Your task to perform on an android device: Open calendar and show me the fourth week of next month Image 0: 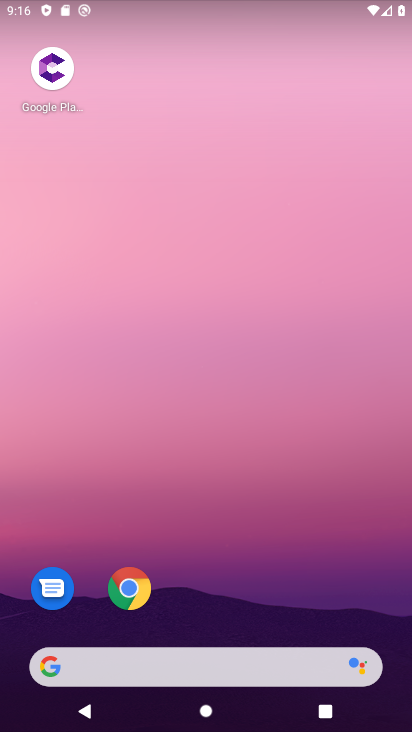
Step 0: drag from (264, 594) to (269, 0)
Your task to perform on an android device: Open calendar and show me the fourth week of next month Image 1: 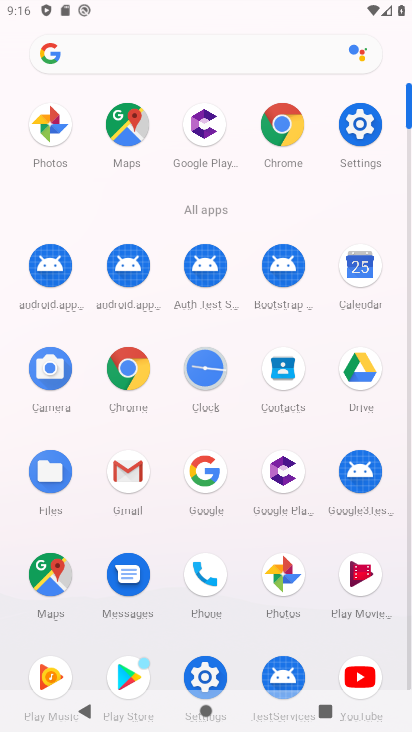
Step 1: click (361, 279)
Your task to perform on an android device: Open calendar and show me the fourth week of next month Image 2: 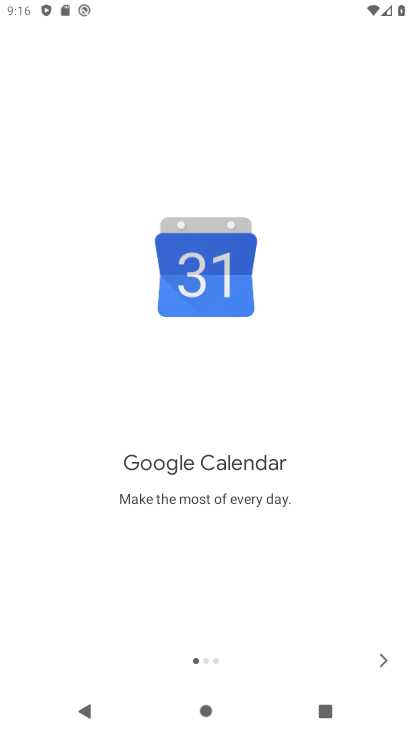
Step 2: click (388, 663)
Your task to perform on an android device: Open calendar and show me the fourth week of next month Image 3: 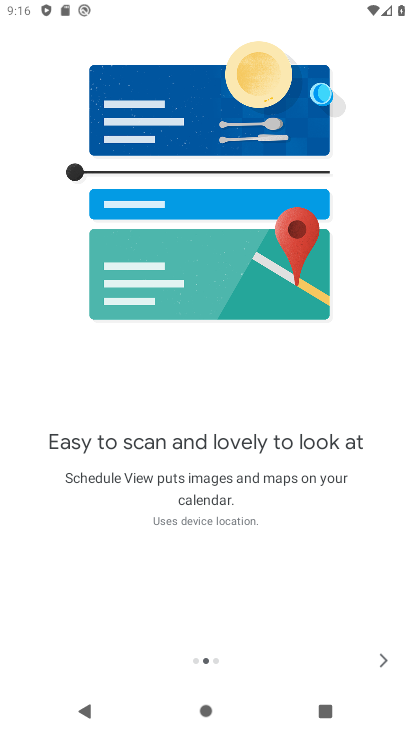
Step 3: click (388, 658)
Your task to perform on an android device: Open calendar and show me the fourth week of next month Image 4: 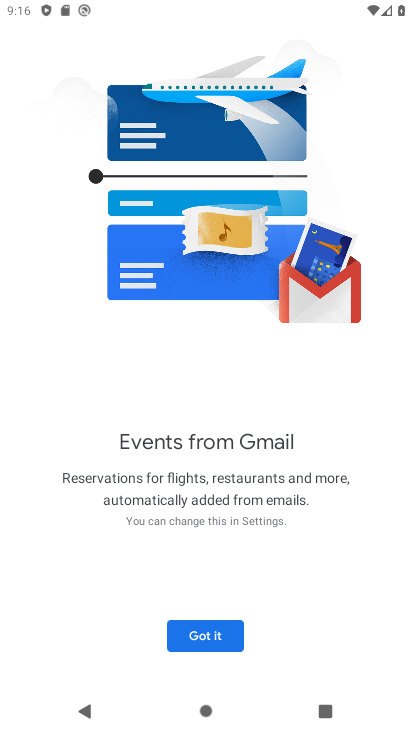
Step 4: click (205, 628)
Your task to perform on an android device: Open calendar and show me the fourth week of next month Image 5: 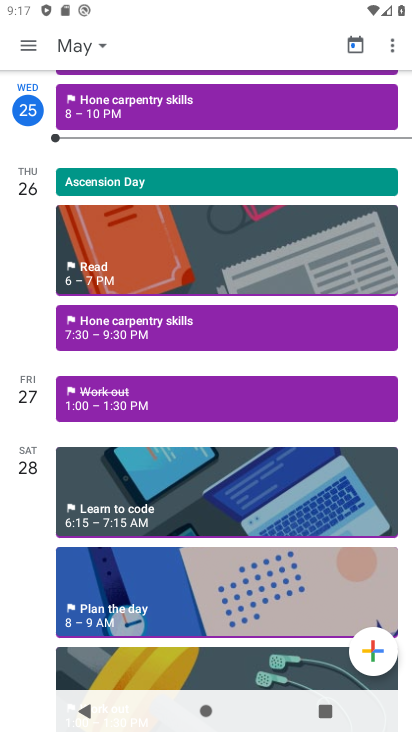
Step 5: click (90, 47)
Your task to perform on an android device: Open calendar and show me the fourth week of next month Image 6: 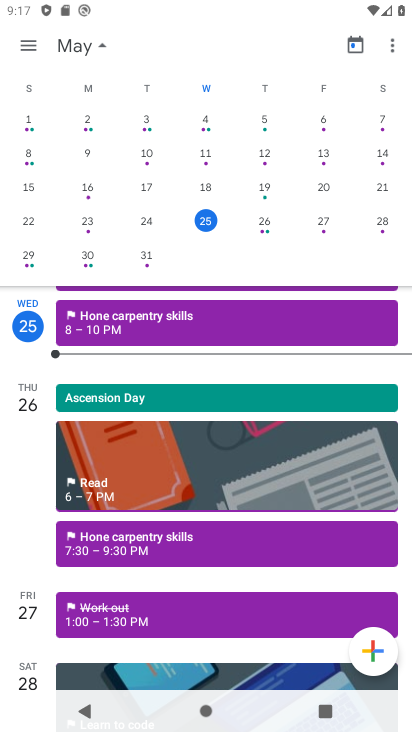
Step 6: drag from (353, 195) to (36, 203)
Your task to perform on an android device: Open calendar and show me the fourth week of next month Image 7: 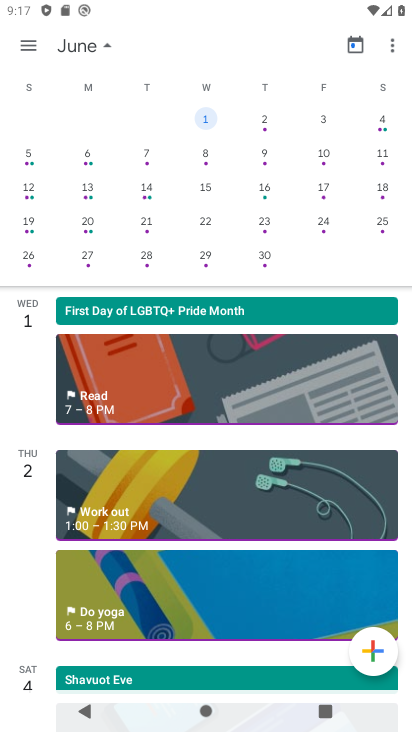
Step 7: click (37, 225)
Your task to perform on an android device: Open calendar and show me the fourth week of next month Image 8: 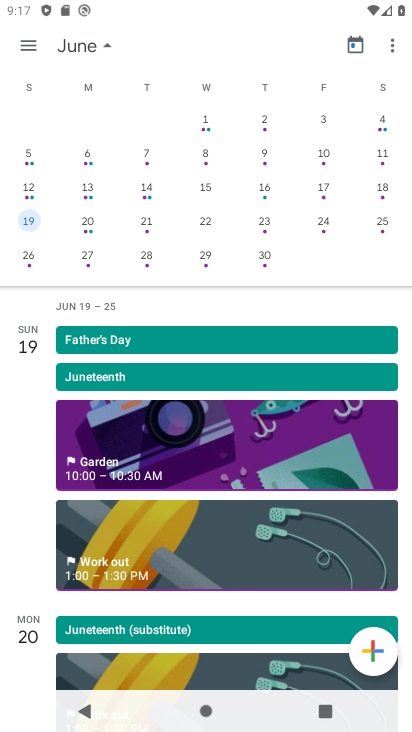
Step 8: task complete